Your task to perform on an android device: Go to network settings Image 0: 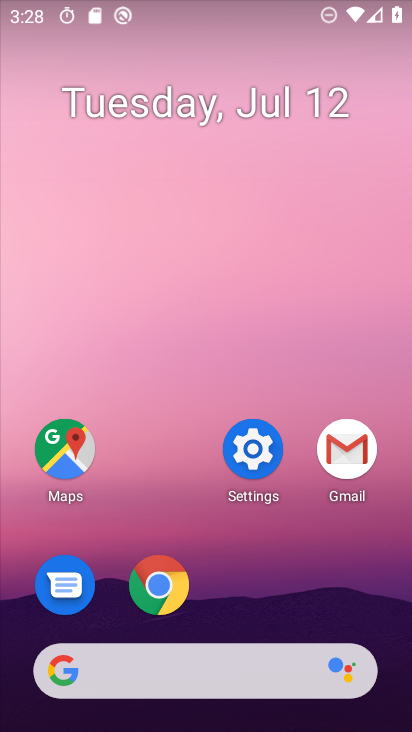
Step 0: click (254, 445)
Your task to perform on an android device: Go to network settings Image 1: 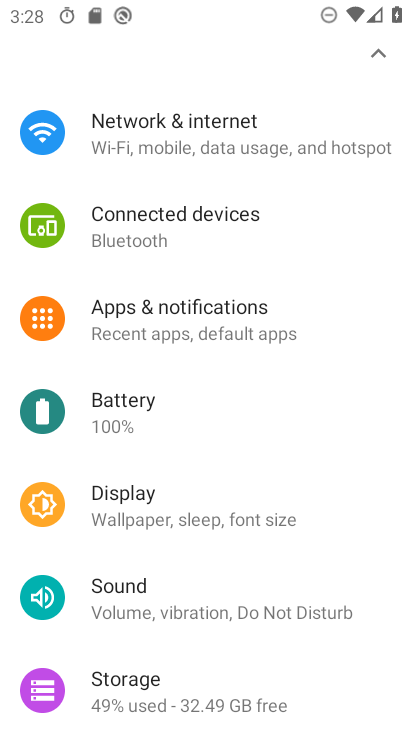
Step 1: click (146, 129)
Your task to perform on an android device: Go to network settings Image 2: 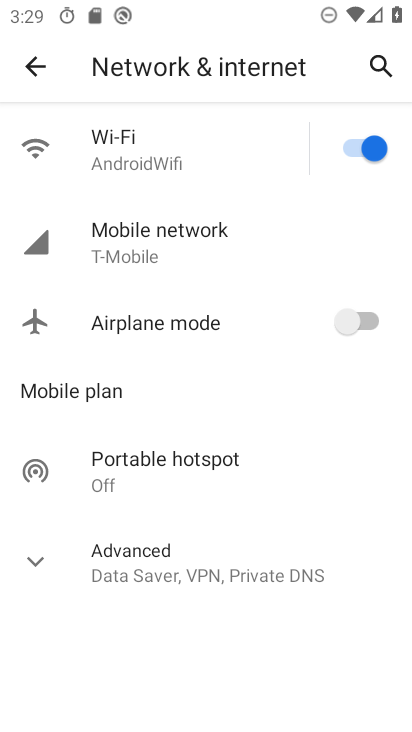
Step 2: click (120, 238)
Your task to perform on an android device: Go to network settings Image 3: 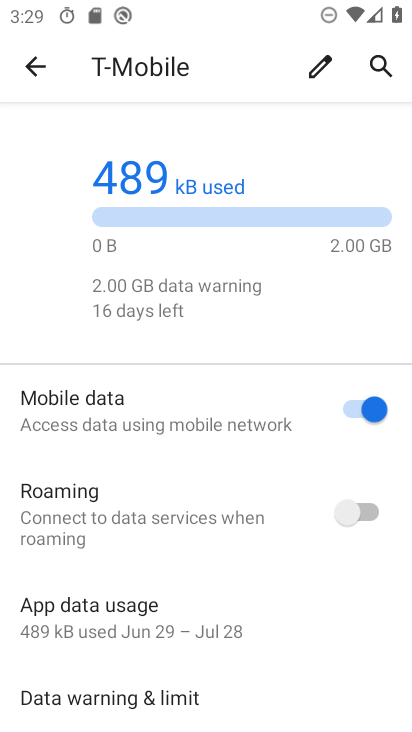
Step 3: task complete